Your task to perform on an android device: manage bookmarks in the chrome app Image 0: 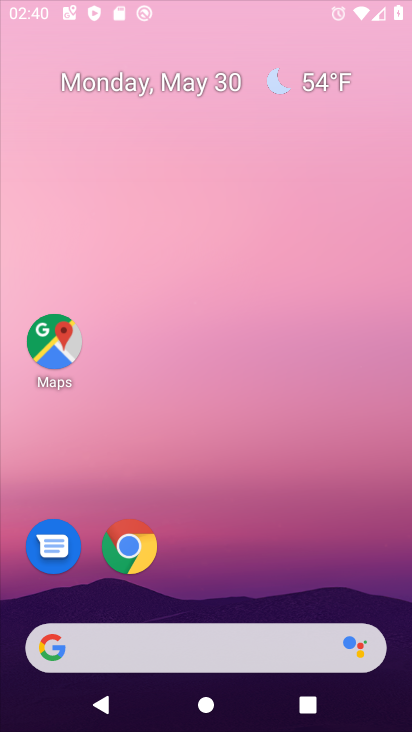
Step 0: press home button
Your task to perform on an android device: manage bookmarks in the chrome app Image 1: 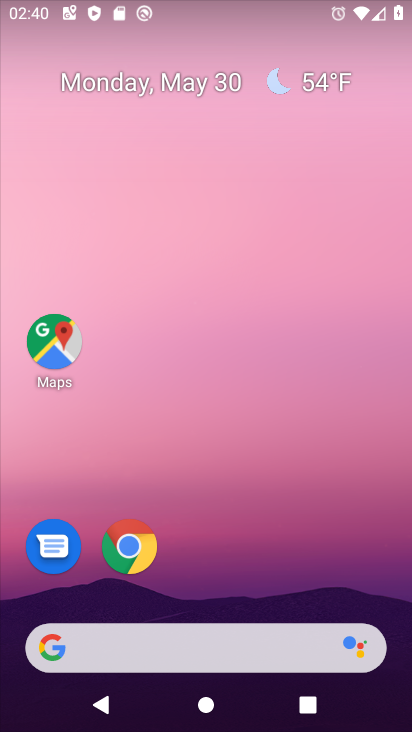
Step 1: click (130, 543)
Your task to perform on an android device: manage bookmarks in the chrome app Image 2: 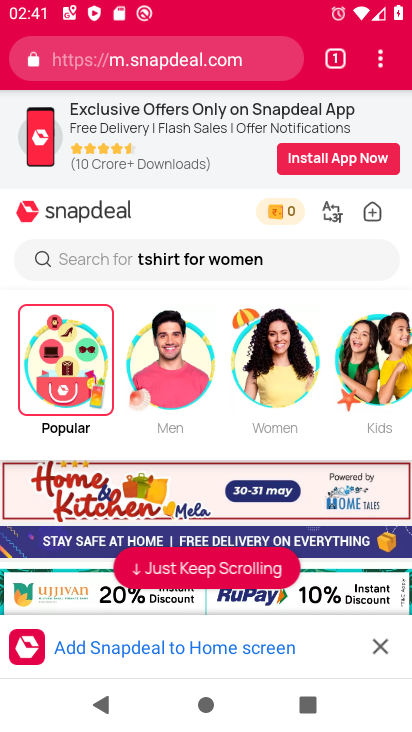
Step 2: click (377, 49)
Your task to perform on an android device: manage bookmarks in the chrome app Image 3: 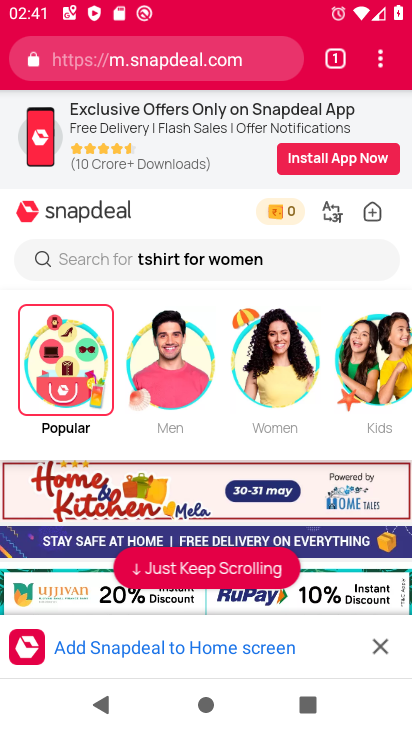
Step 3: click (386, 59)
Your task to perform on an android device: manage bookmarks in the chrome app Image 4: 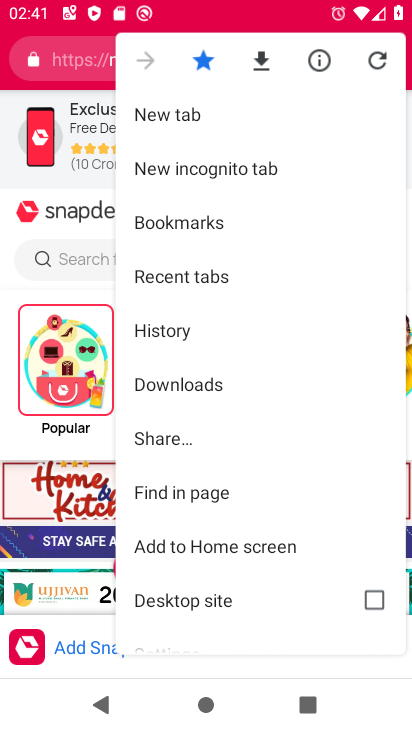
Step 4: click (237, 219)
Your task to perform on an android device: manage bookmarks in the chrome app Image 5: 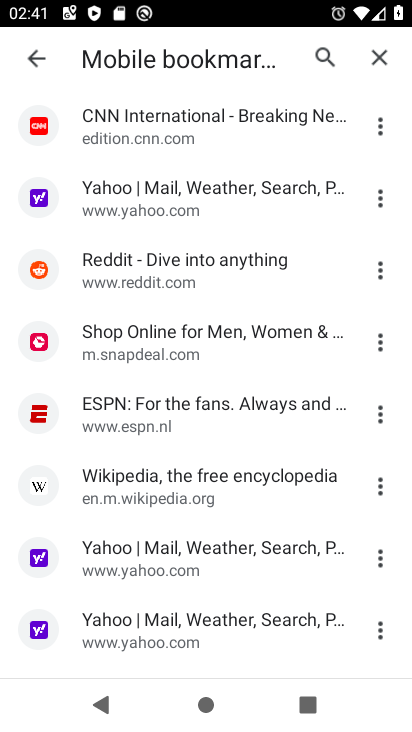
Step 5: click (381, 126)
Your task to perform on an android device: manage bookmarks in the chrome app Image 6: 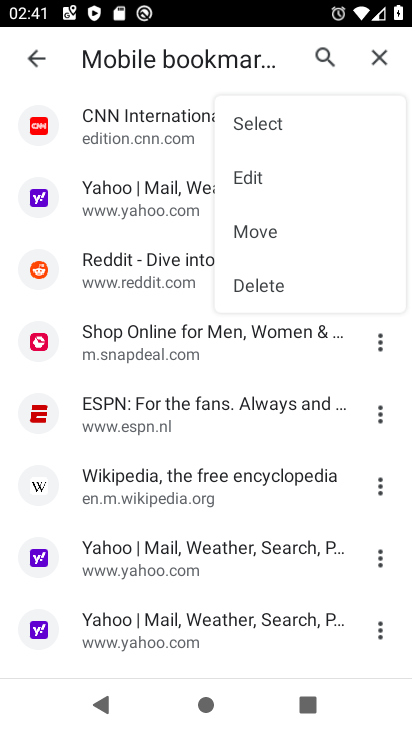
Step 6: click (285, 292)
Your task to perform on an android device: manage bookmarks in the chrome app Image 7: 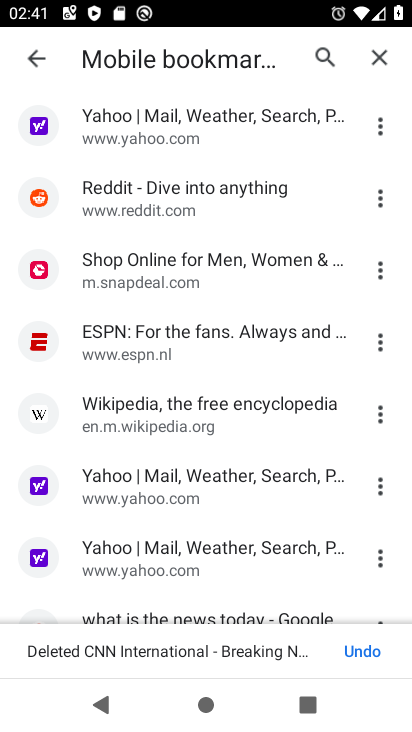
Step 7: task complete